Your task to perform on an android device: find photos in the google photos app Image 0: 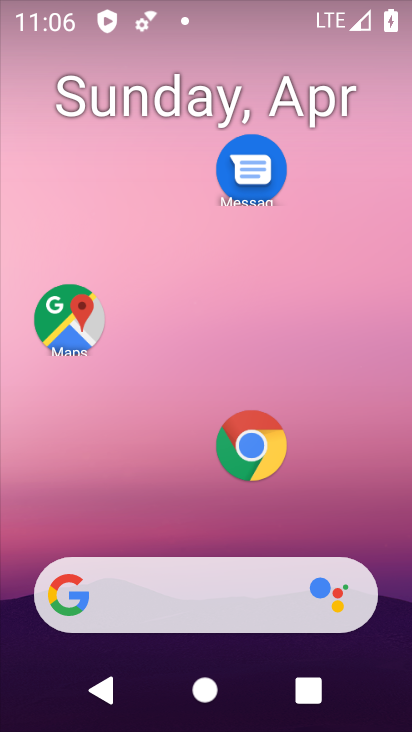
Step 0: drag from (160, 604) to (339, 37)
Your task to perform on an android device: find photos in the google photos app Image 1: 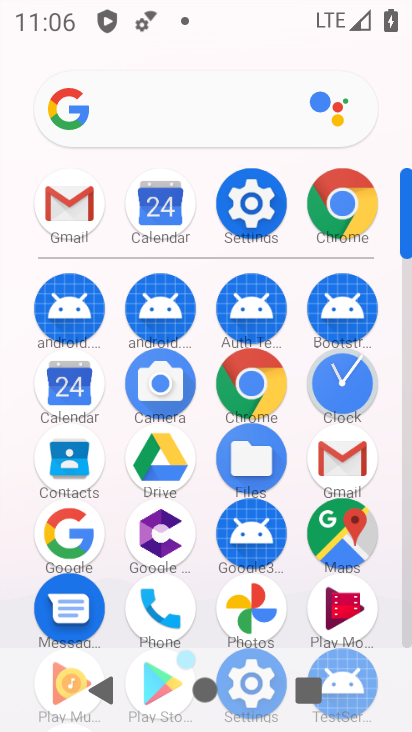
Step 1: click (257, 611)
Your task to perform on an android device: find photos in the google photos app Image 2: 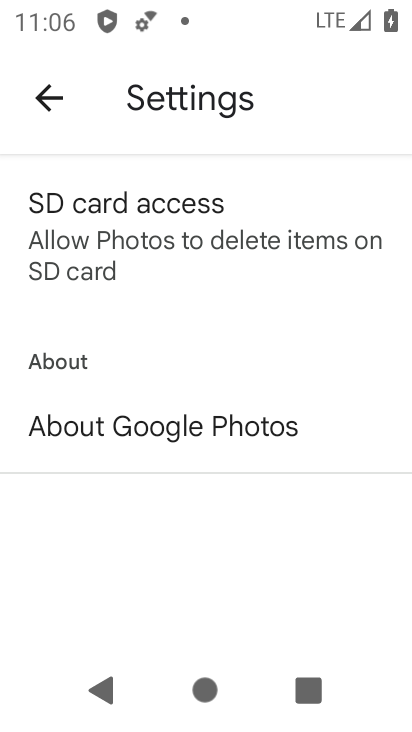
Step 2: click (41, 93)
Your task to perform on an android device: find photos in the google photos app Image 3: 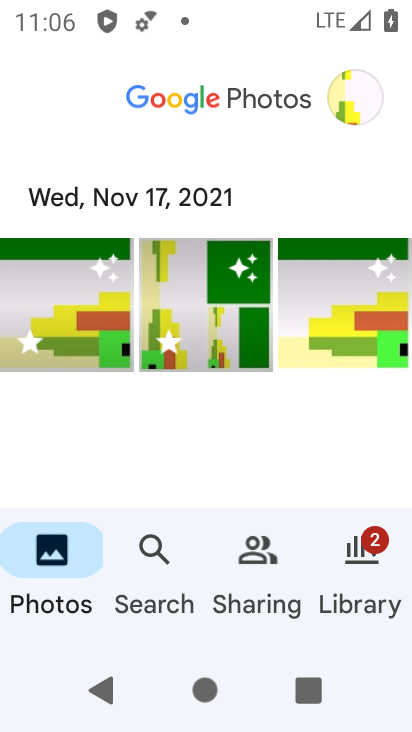
Step 3: click (54, 570)
Your task to perform on an android device: find photos in the google photos app Image 4: 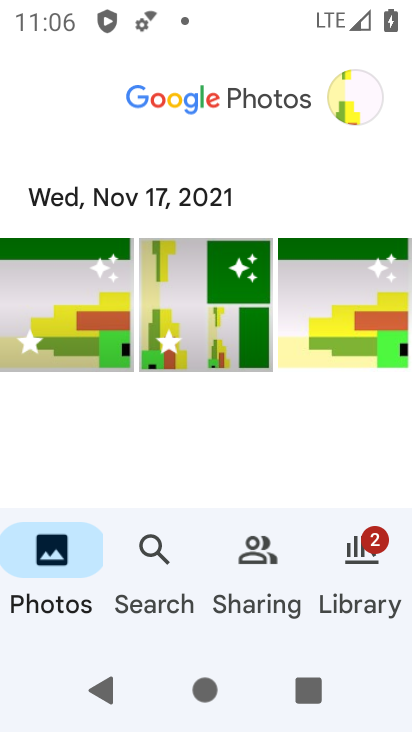
Step 4: task complete